Your task to perform on an android device: Open Google Chrome and open the bookmarks view Image 0: 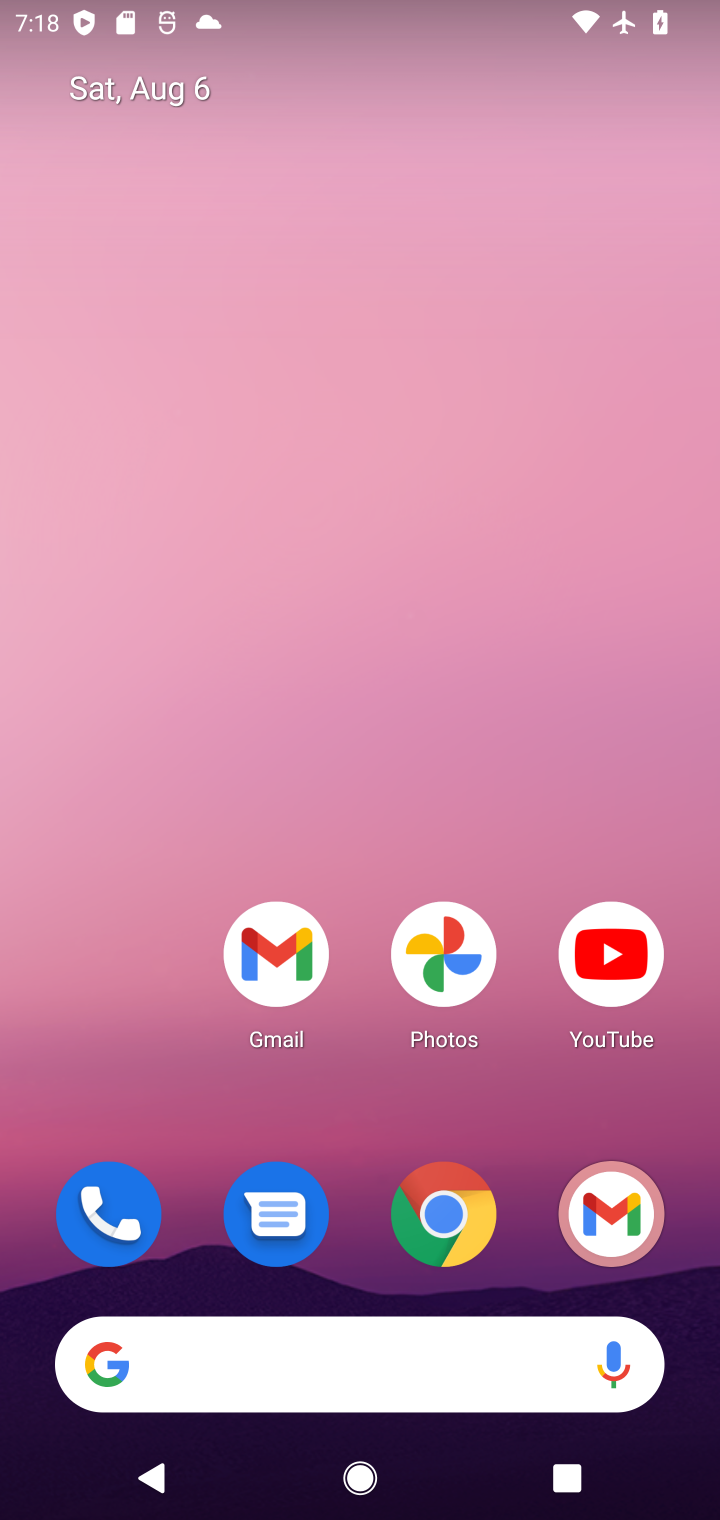
Step 0: click (424, 1148)
Your task to perform on an android device: Open Google Chrome and open the bookmarks view Image 1: 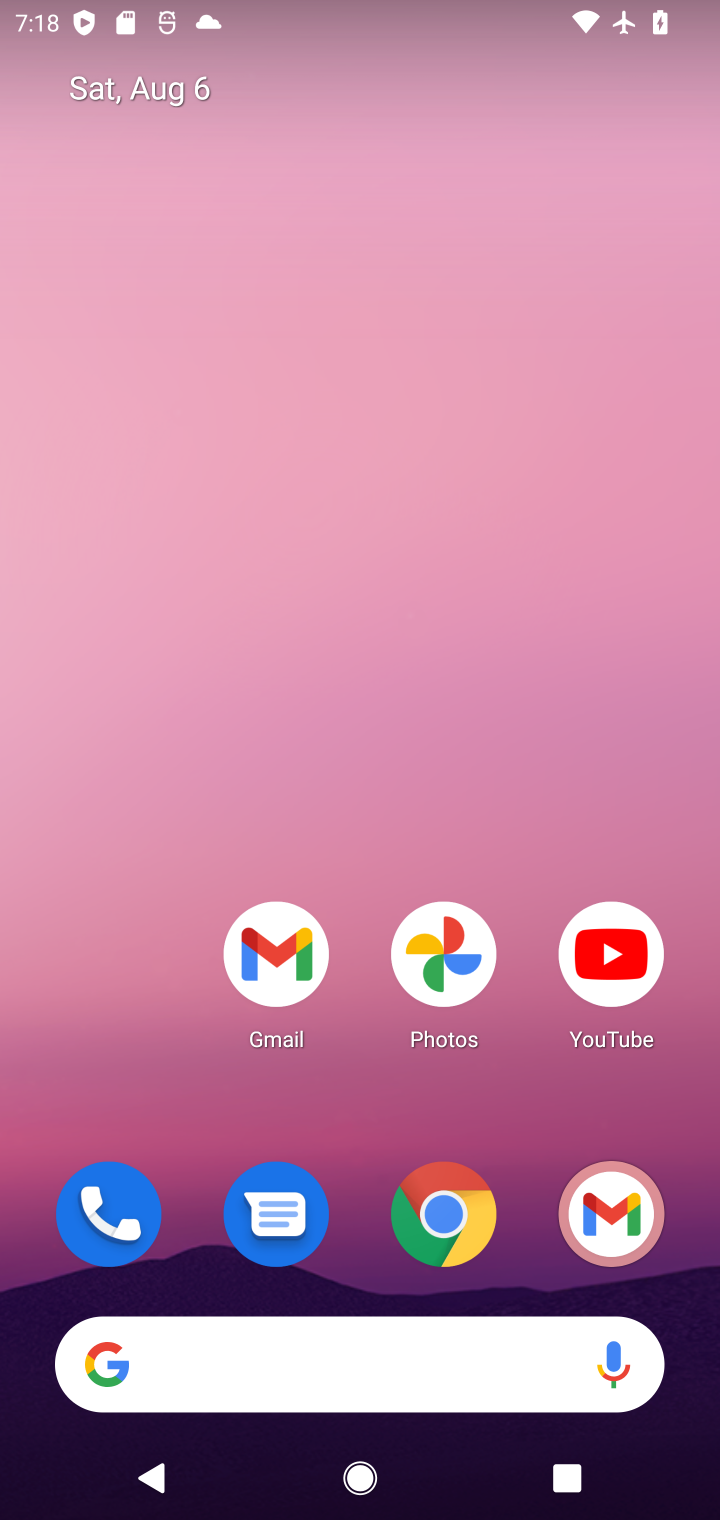
Step 1: click (441, 1227)
Your task to perform on an android device: Open Google Chrome and open the bookmarks view Image 2: 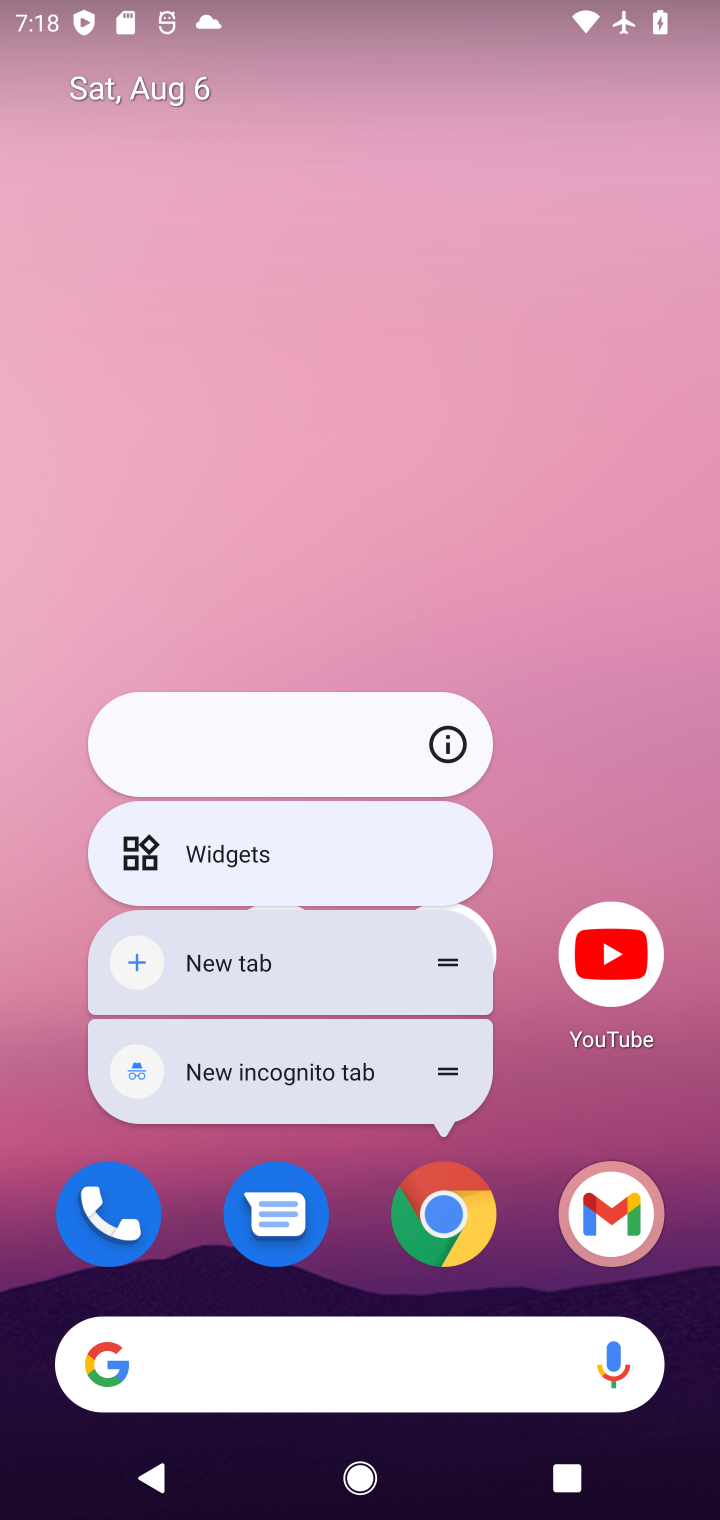
Step 2: click (447, 1233)
Your task to perform on an android device: Open Google Chrome and open the bookmarks view Image 3: 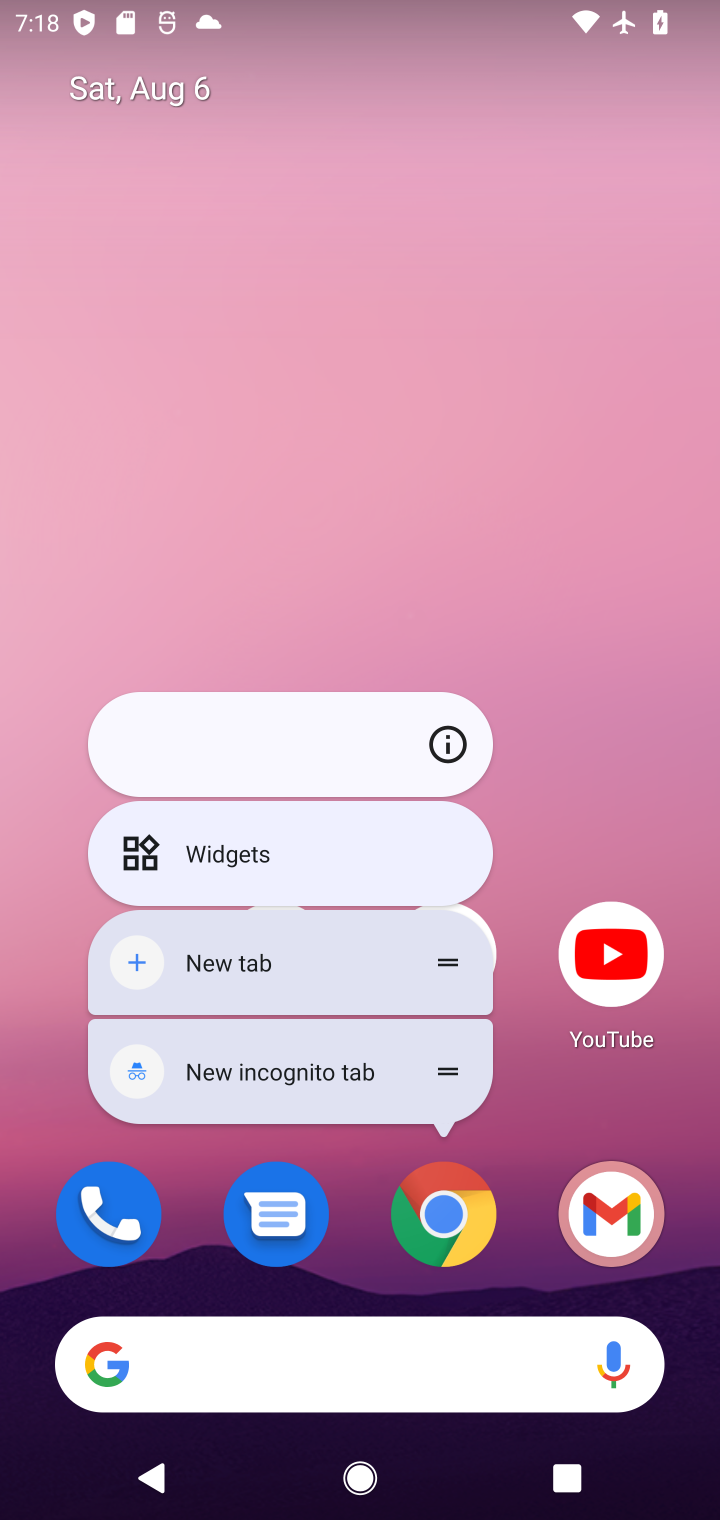
Step 3: click (447, 1239)
Your task to perform on an android device: Open Google Chrome and open the bookmarks view Image 4: 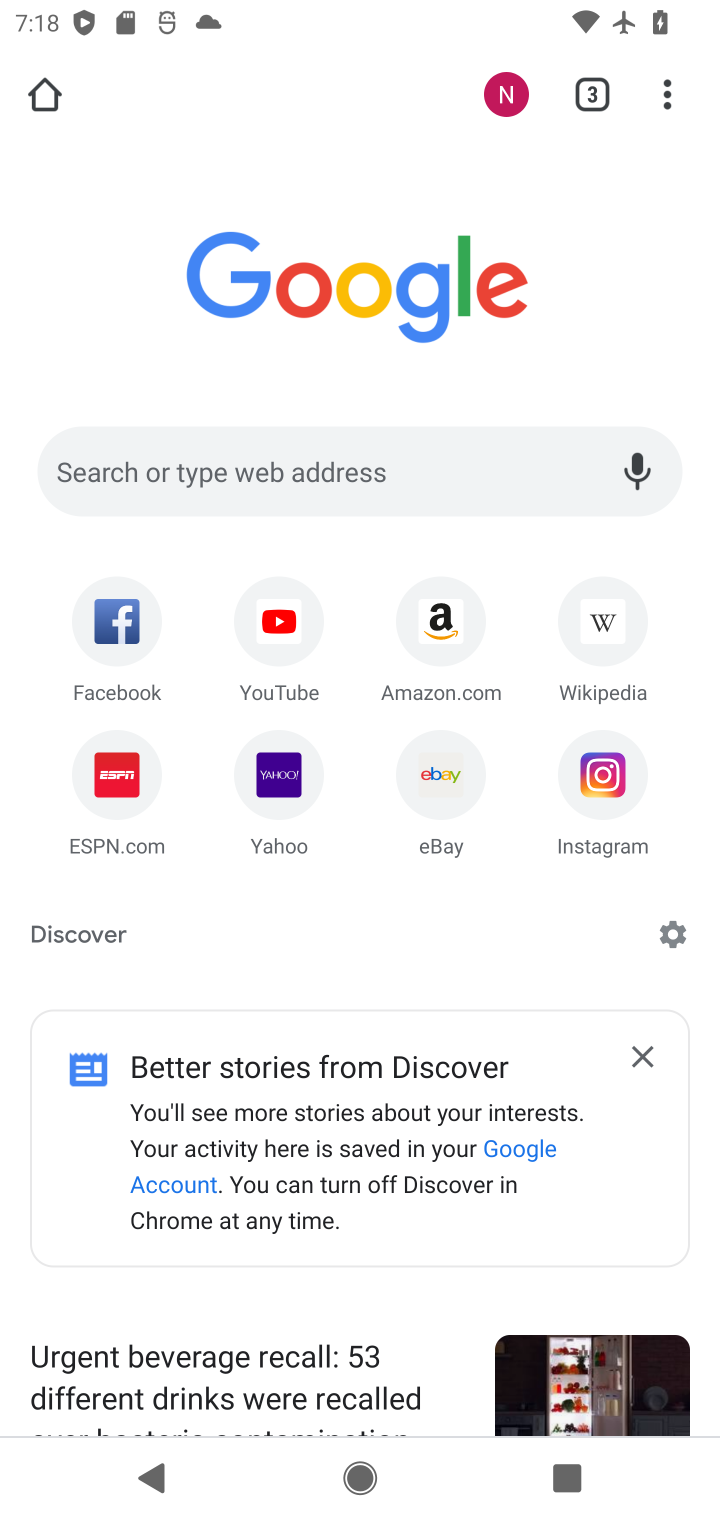
Step 4: click (655, 113)
Your task to perform on an android device: Open Google Chrome and open the bookmarks view Image 5: 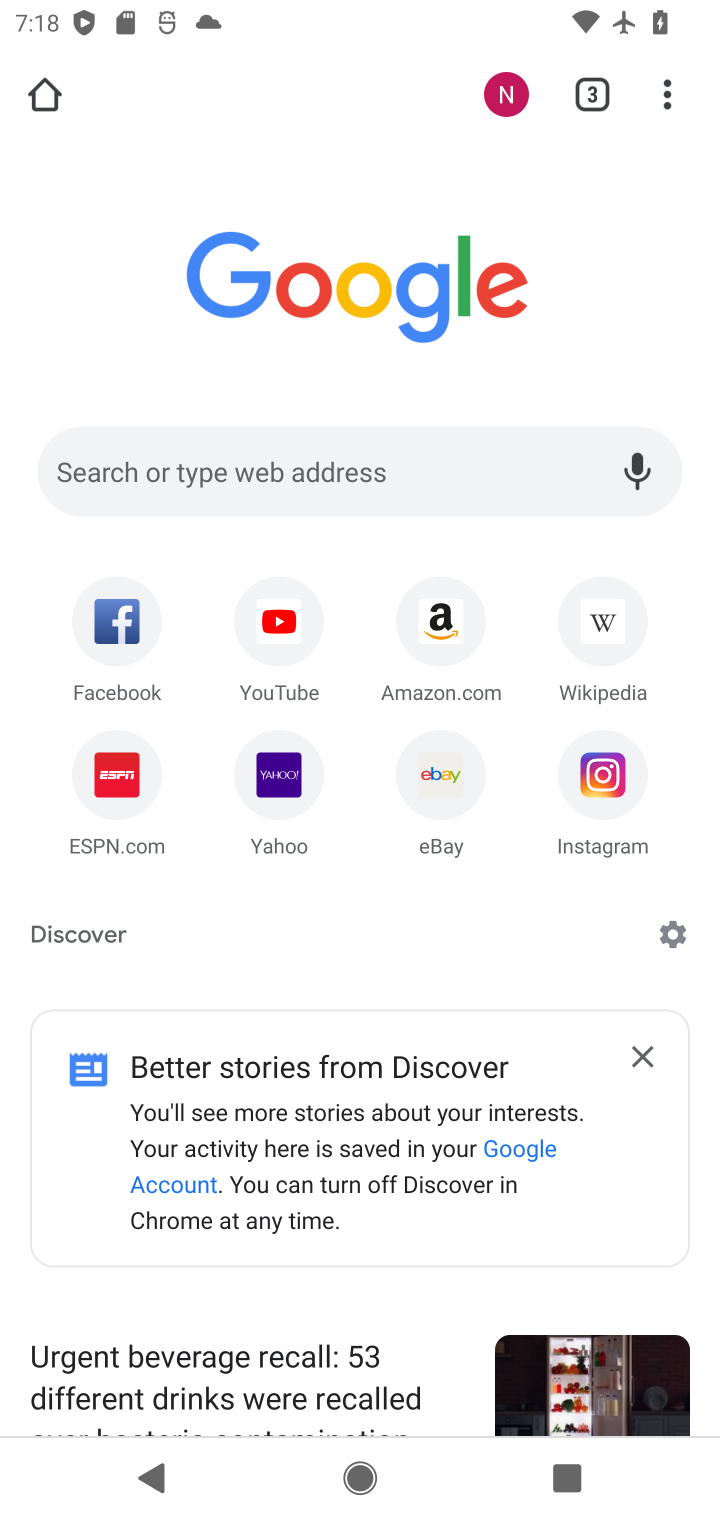
Step 5: click (662, 100)
Your task to perform on an android device: Open Google Chrome and open the bookmarks view Image 6: 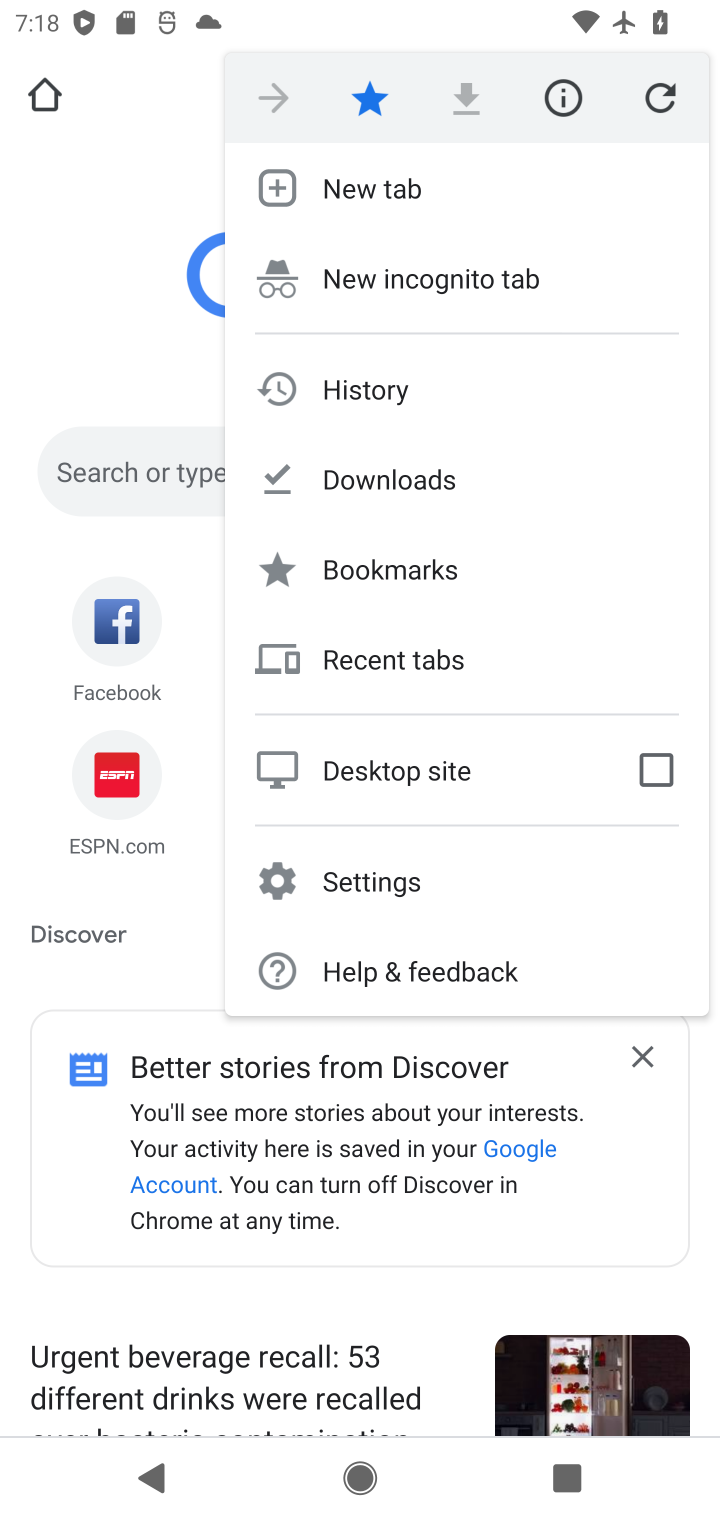
Step 6: click (406, 581)
Your task to perform on an android device: Open Google Chrome and open the bookmarks view Image 7: 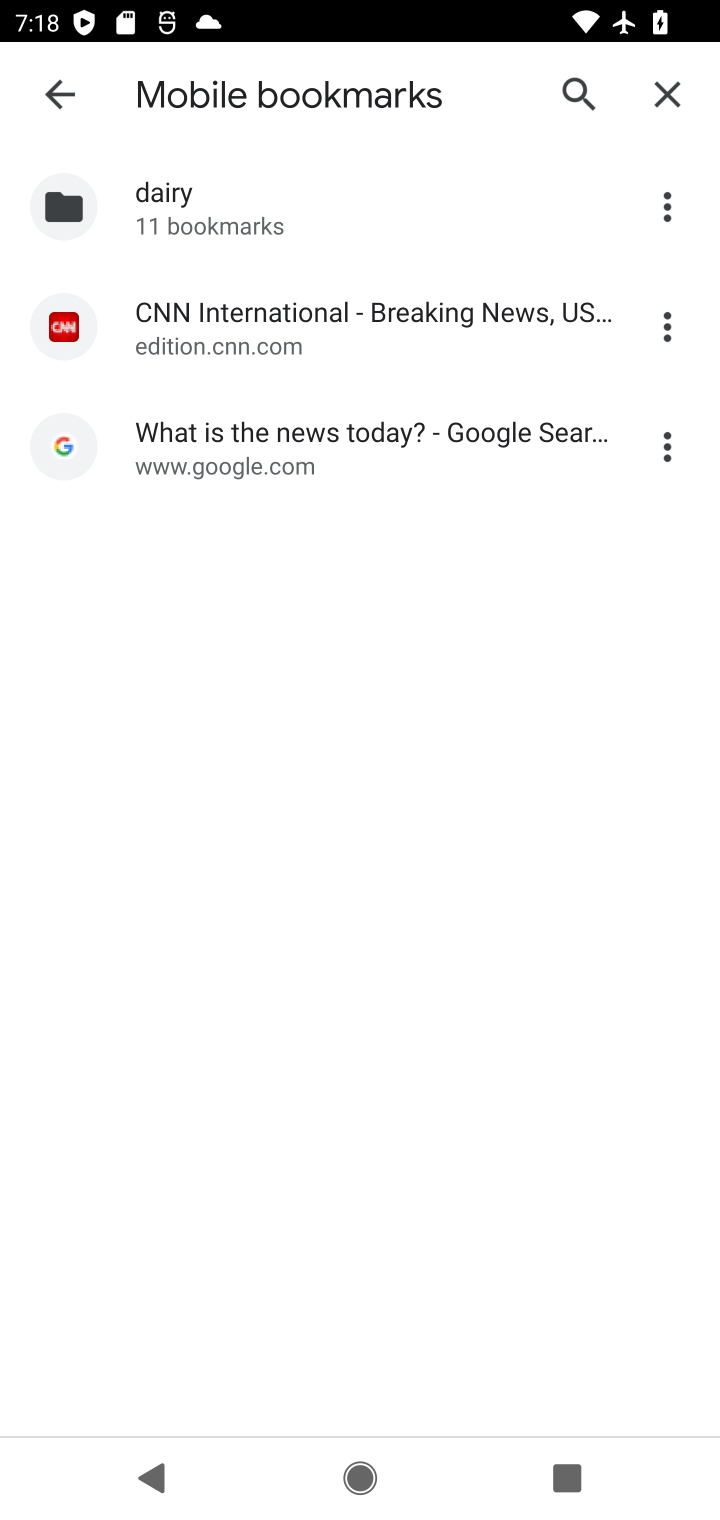
Step 7: task complete